Your task to perform on an android device: Turn off the flashlight Image 0: 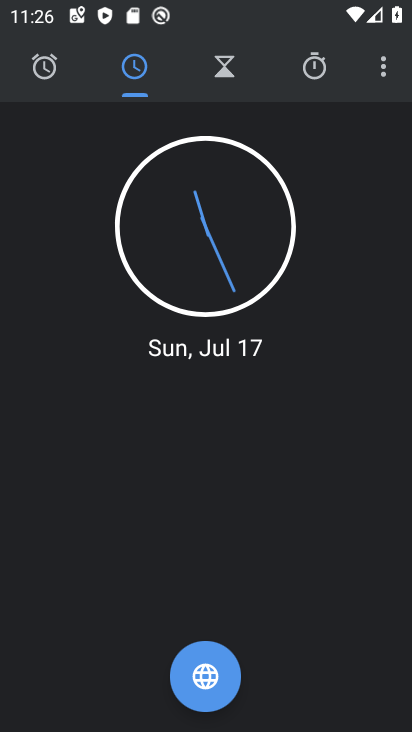
Step 0: press home button
Your task to perform on an android device: Turn off the flashlight Image 1: 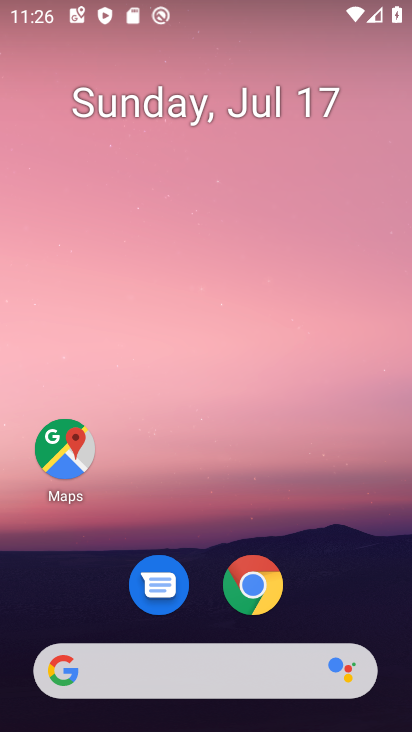
Step 1: drag from (335, 556) to (332, 55)
Your task to perform on an android device: Turn off the flashlight Image 2: 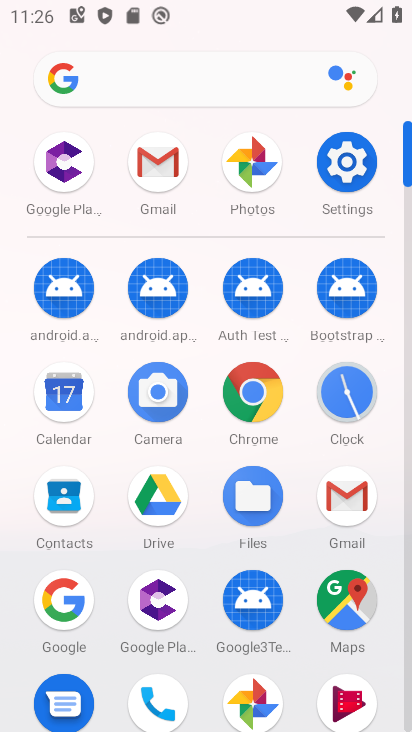
Step 2: click (342, 146)
Your task to perform on an android device: Turn off the flashlight Image 3: 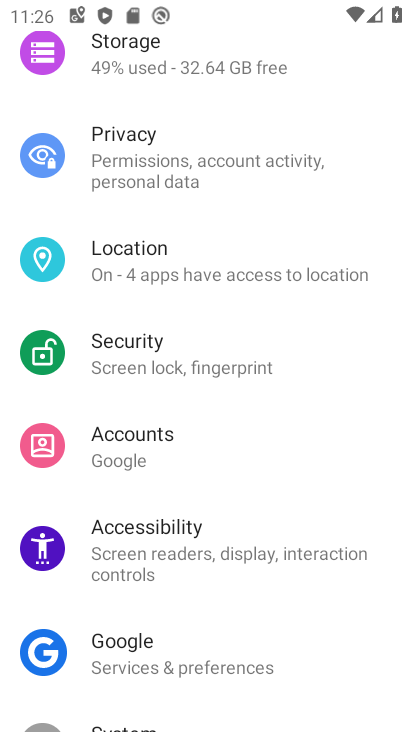
Step 3: drag from (247, 237) to (274, 606)
Your task to perform on an android device: Turn off the flashlight Image 4: 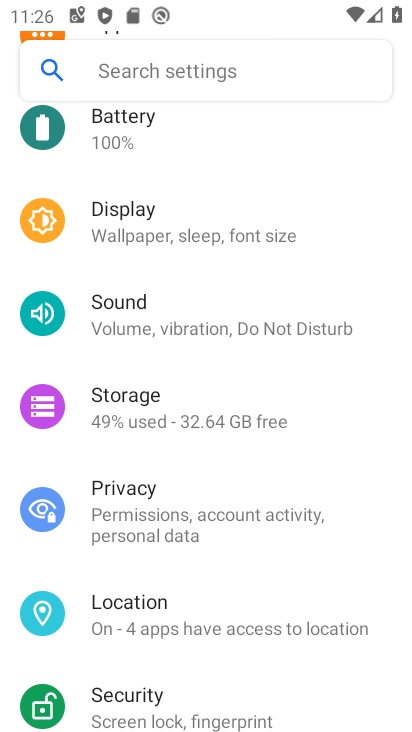
Step 4: drag from (185, 164) to (297, 530)
Your task to perform on an android device: Turn off the flashlight Image 5: 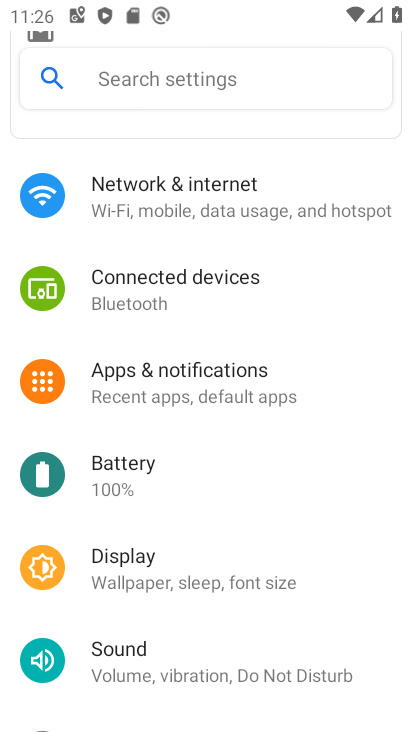
Step 5: drag from (245, 180) to (329, 586)
Your task to perform on an android device: Turn off the flashlight Image 6: 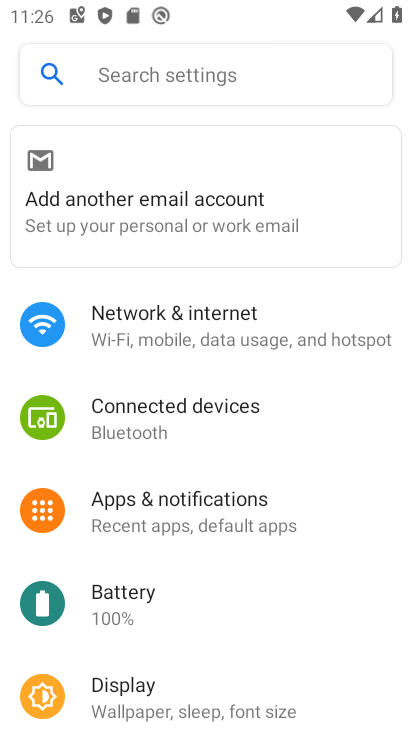
Step 6: click (221, 65)
Your task to perform on an android device: Turn off the flashlight Image 7: 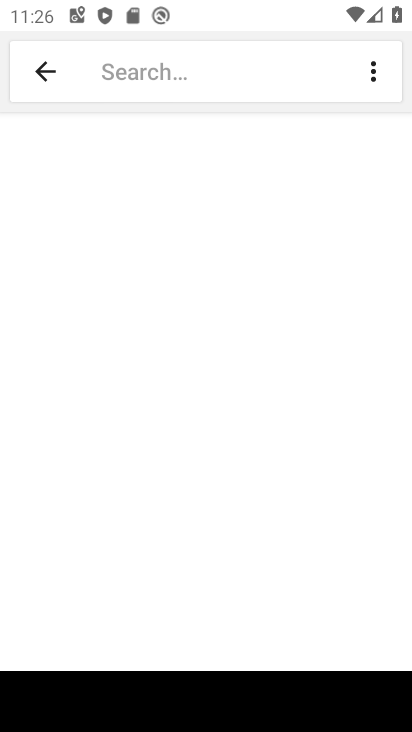
Step 7: type "Flashlight"
Your task to perform on an android device: Turn off the flashlight Image 8: 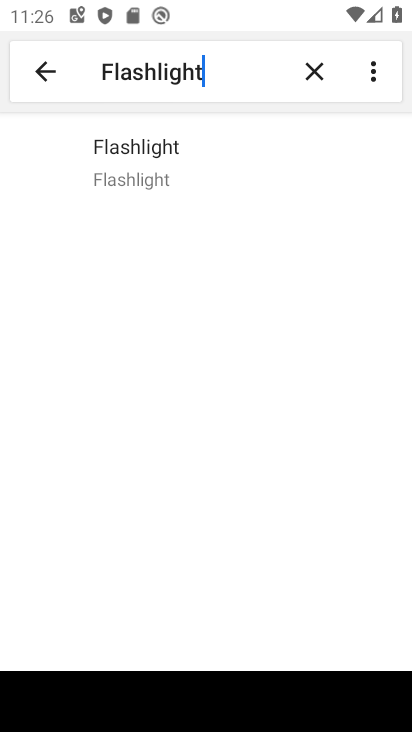
Step 8: click (141, 159)
Your task to perform on an android device: Turn off the flashlight Image 9: 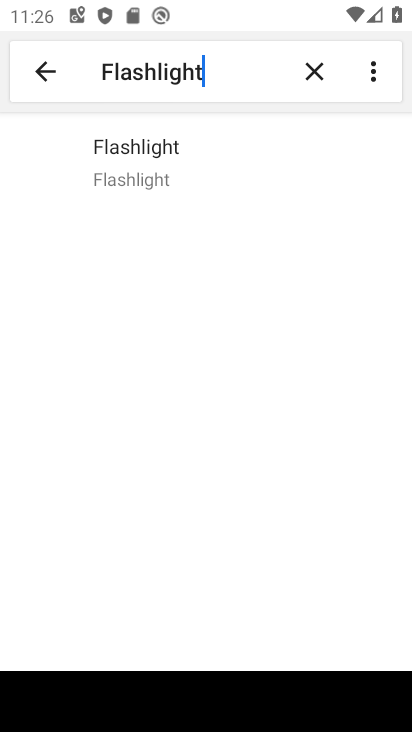
Step 9: click (141, 161)
Your task to perform on an android device: Turn off the flashlight Image 10: 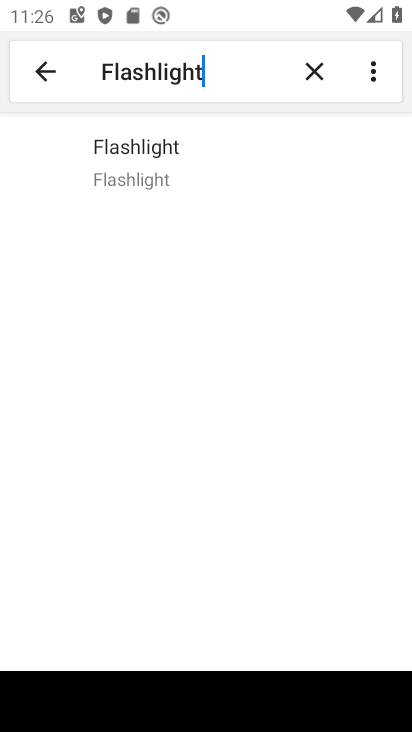
Step 10: task complete